Your task to perform on an android device: open app "The Home Depot" Image 0: 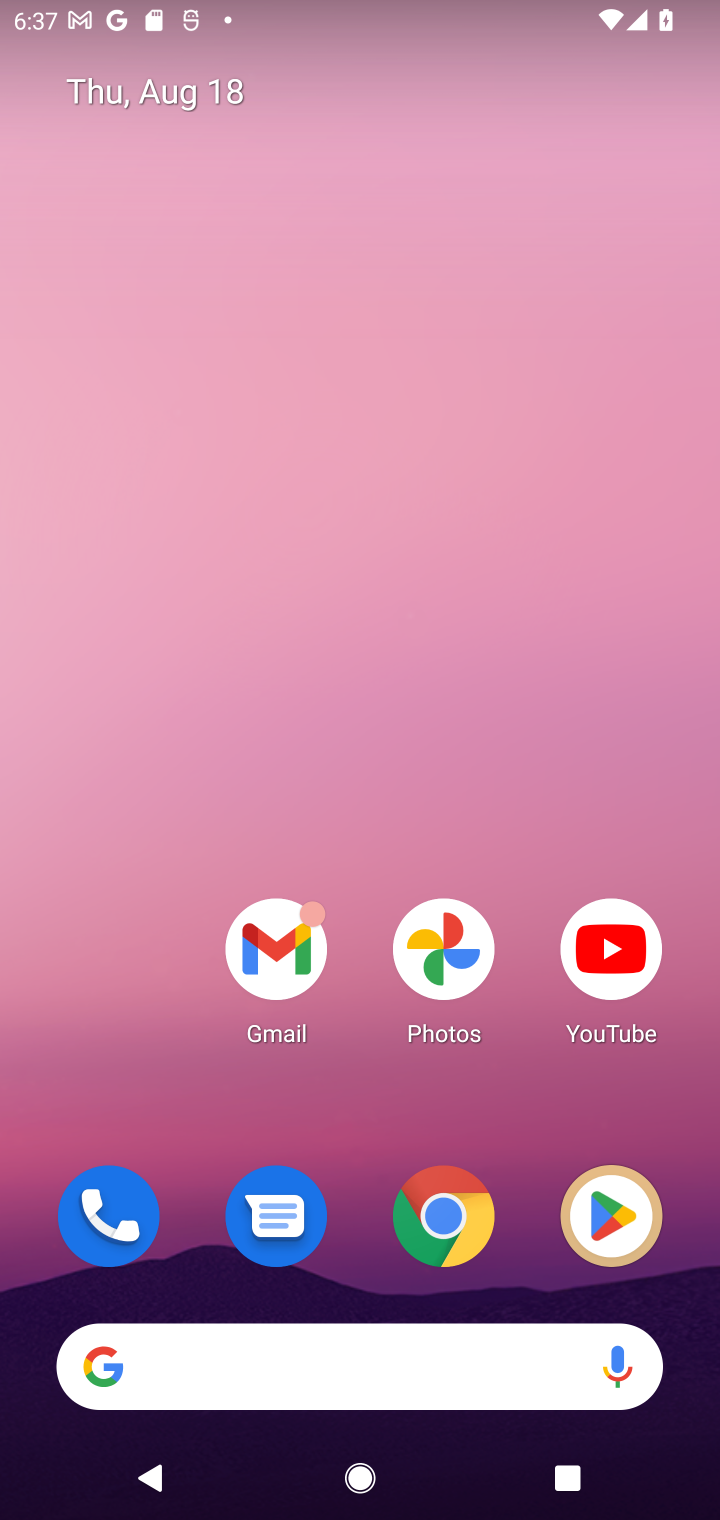
Step 0: click (613, 1220)
Your task to perform on an android device: open app "The Home Depot" Image 1: 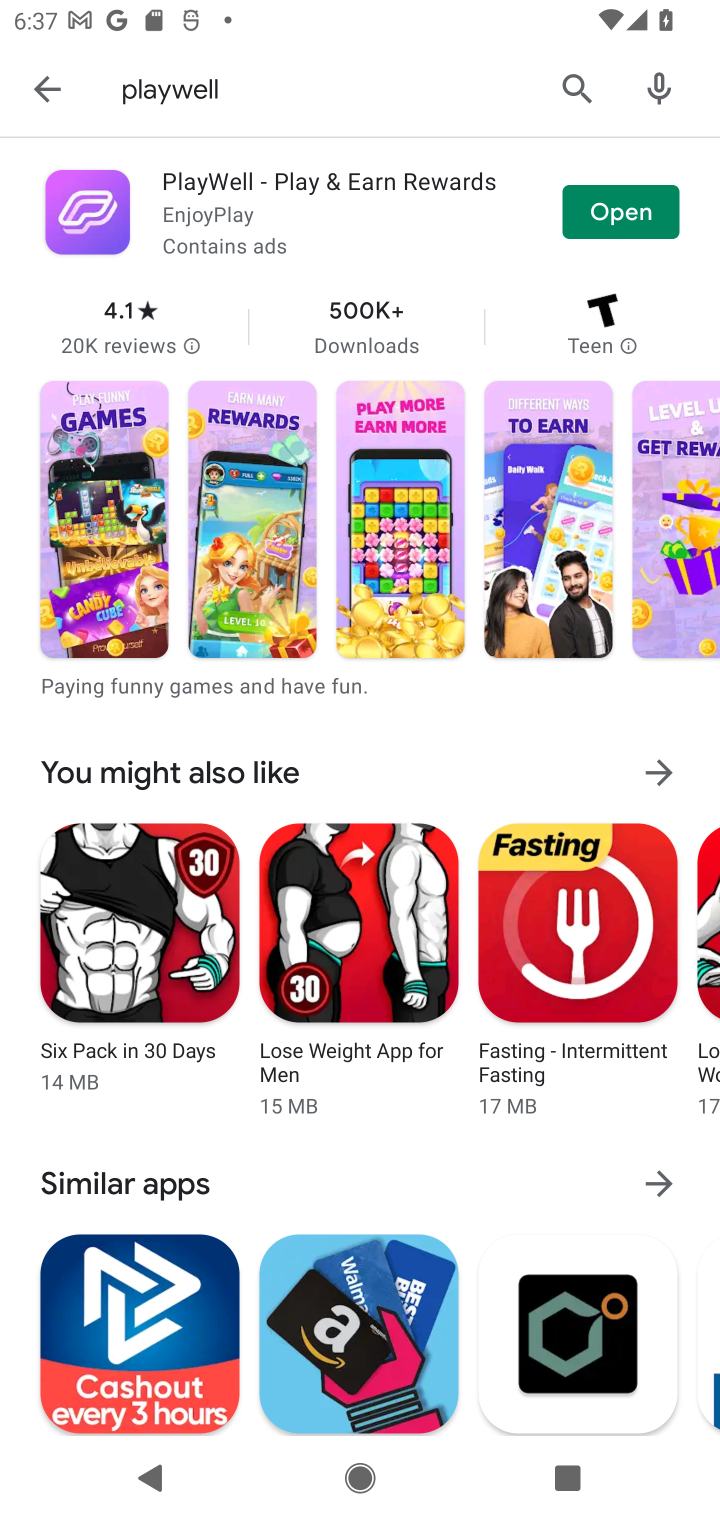
Step 1: click (569, 93)
Your task to perform on an android device: open app "The Home Depot" Image 2: 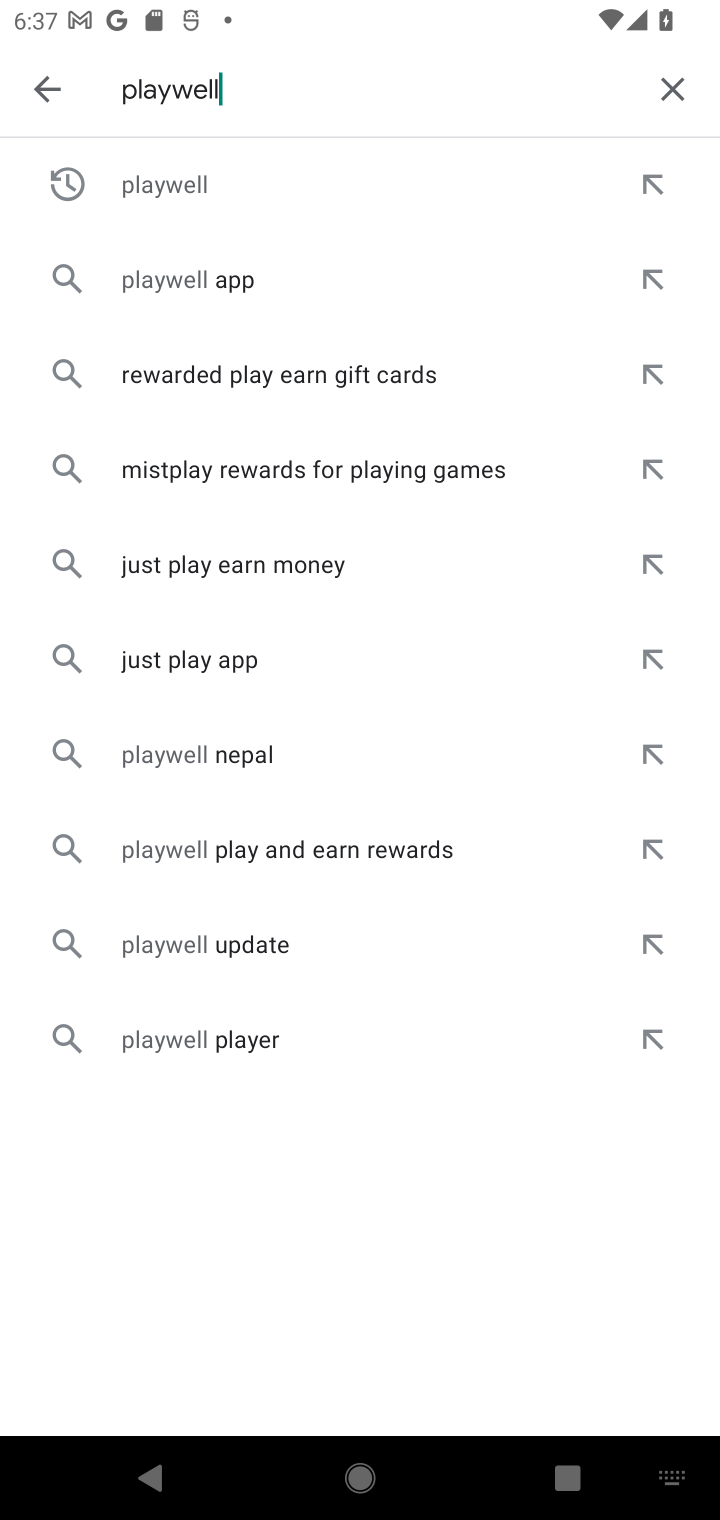
Step 2: click (669, 80)
Your task to perform on an android device: open app "The Home Depot" Image 3: 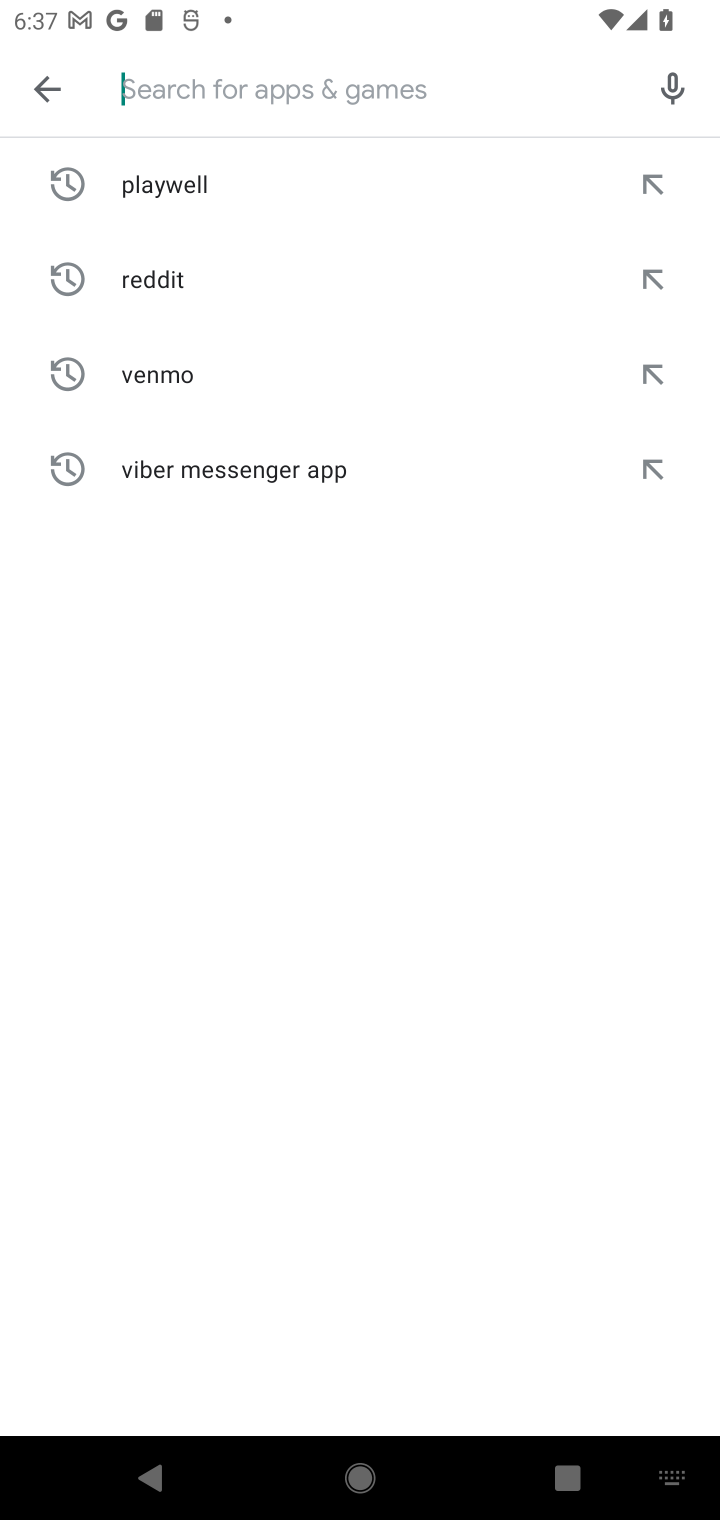
Step 3: type "The Home Depot"
Your task to perform on an android device: open app "The Home Depot" Image 4: 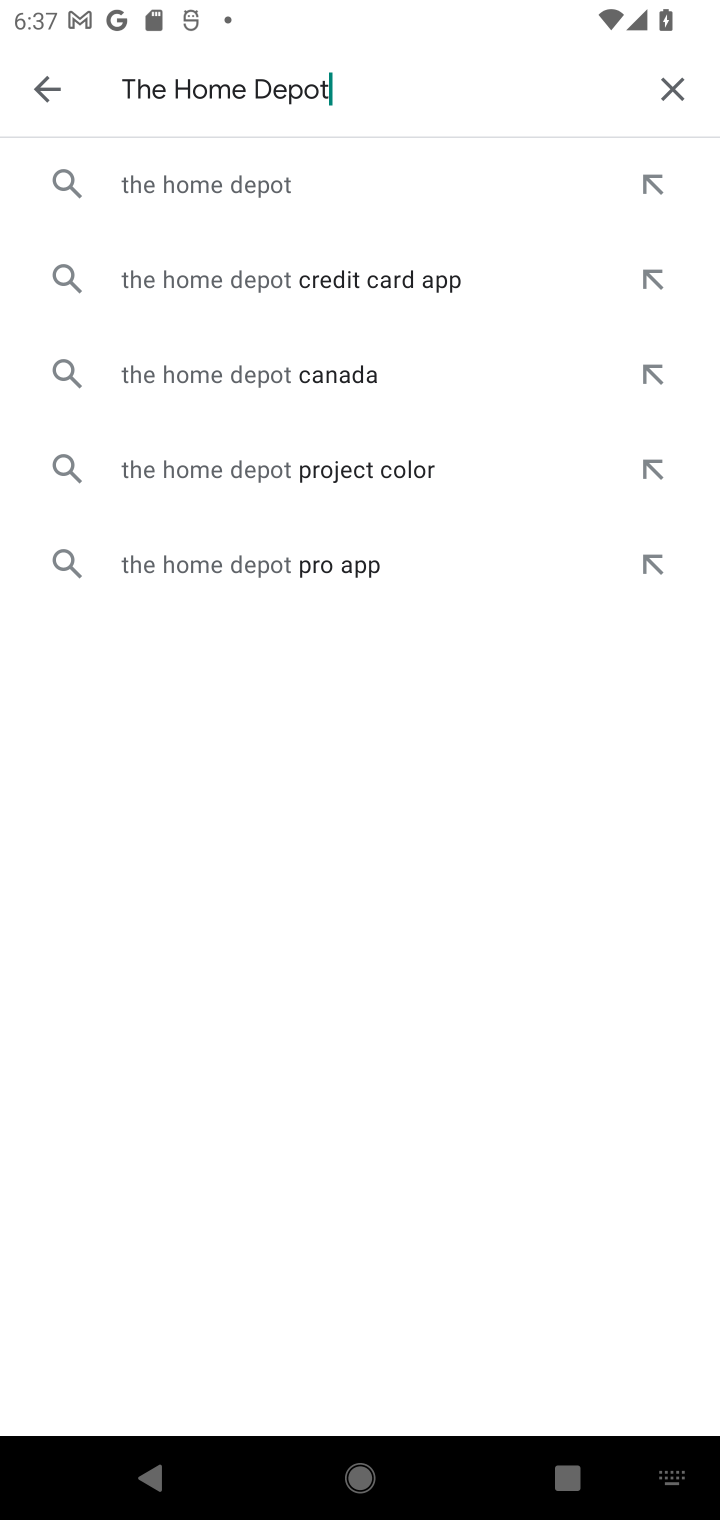
Step 4: click (191, 186)
Your task to perform on an android device: open app "The Home Depot" Image 5: 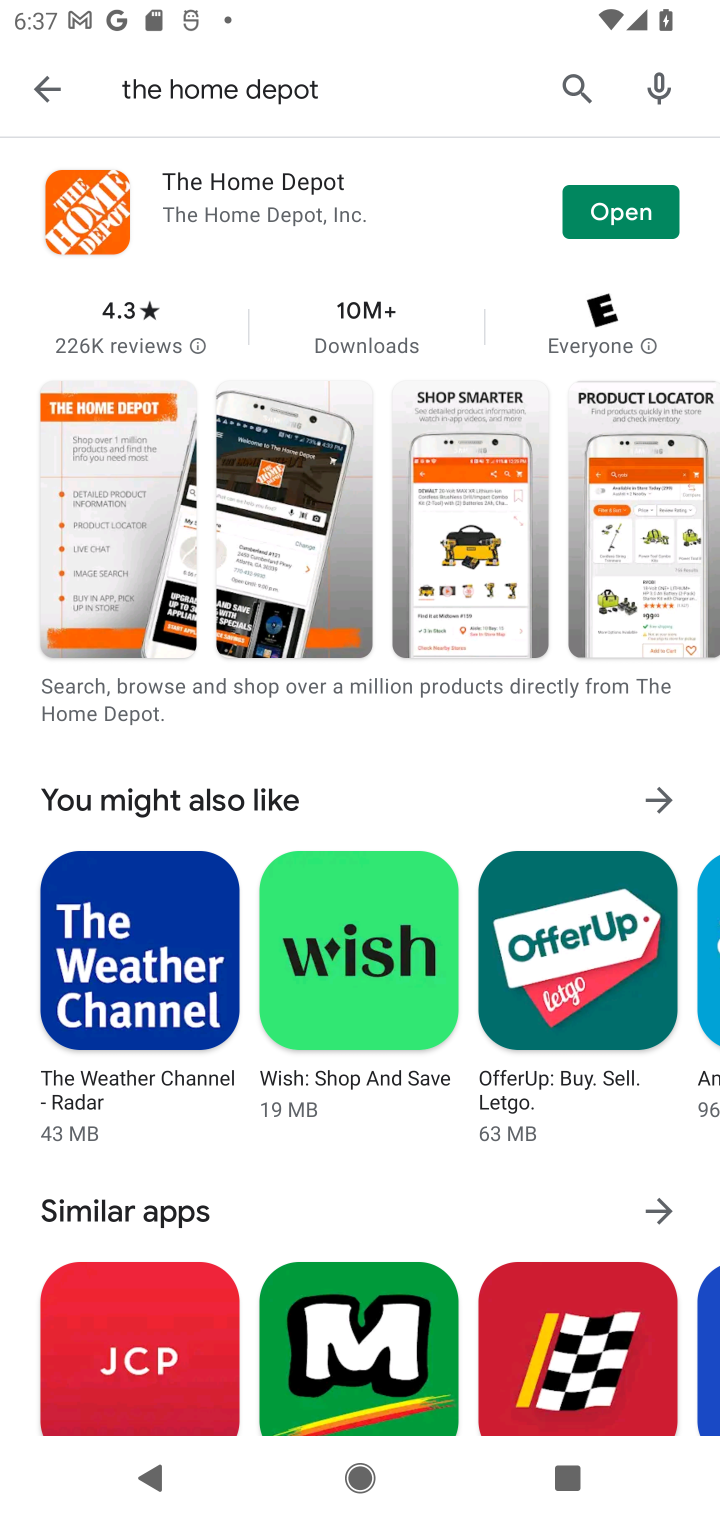
Step 5: click (621, 218)
Your task to perform on an android device: open app "The Home Depot" Image 6: 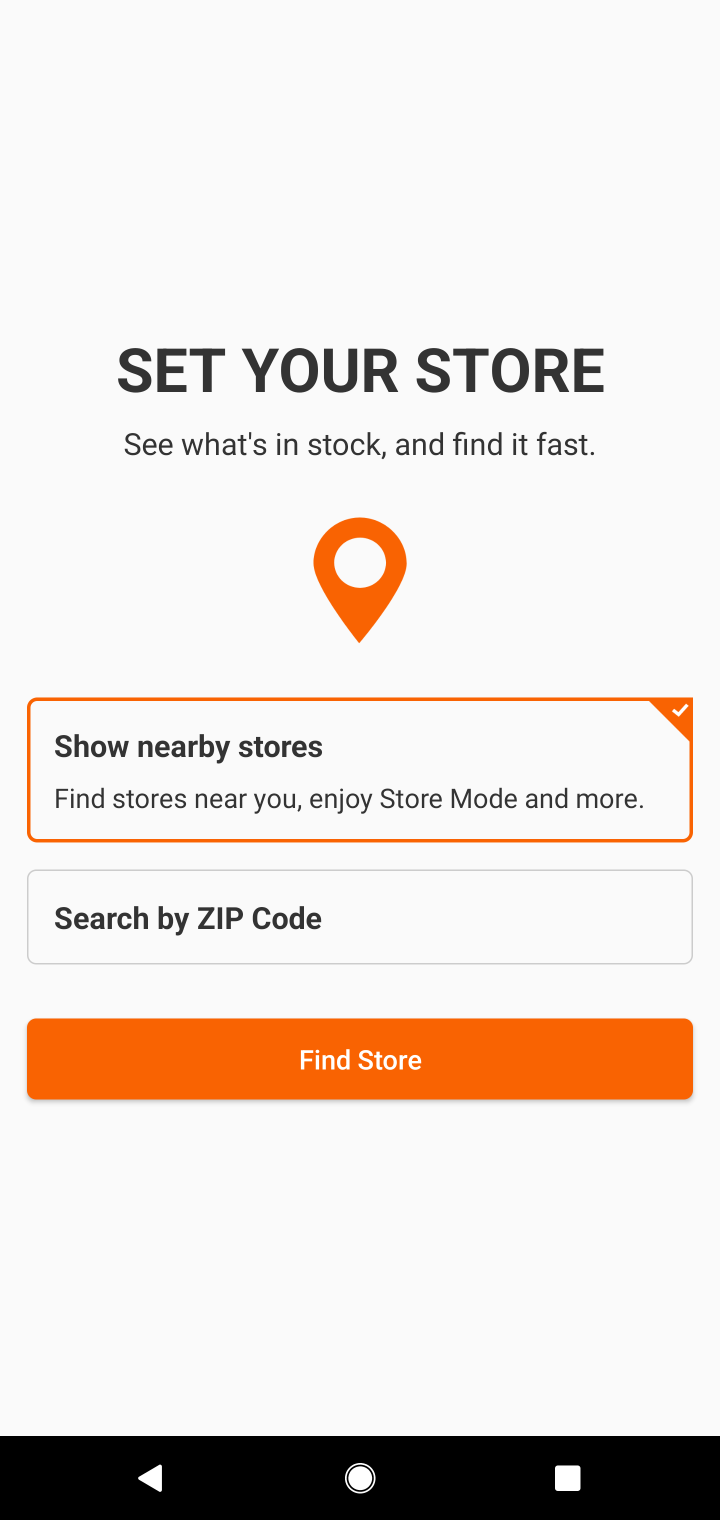
Step 6: task complete